Your task to perform on an android device: turn on the 24-hour format for clock Image 0: 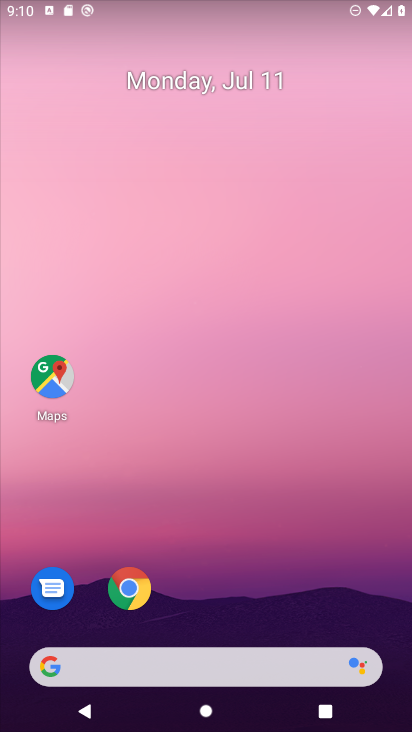
Step 0: drag from (387, 641) to (268, 46)
Your task to perform on an android device: turn on the 24-hour format for clock Image 1: 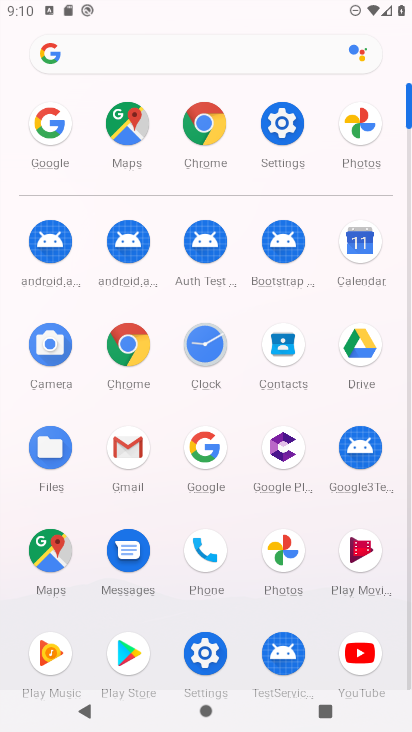
Step 1: click (195, 344)
Your task to perform on an android device: turn on the 24-hour format for clock Image 2: 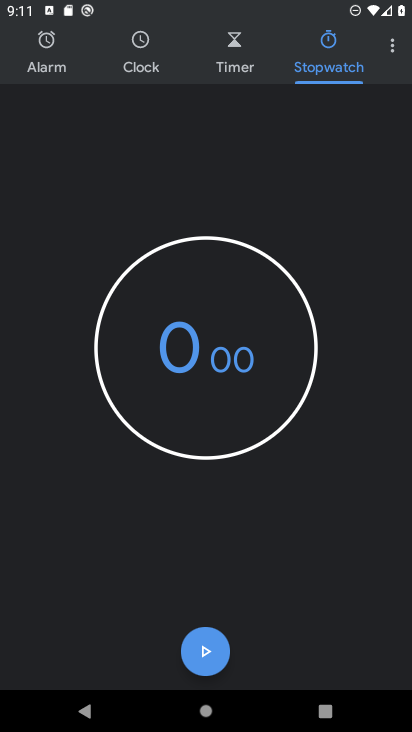
Step 2: click (388, 41)
Your task to perform on an android device: turn on the 24-hour format for clock Image 3: 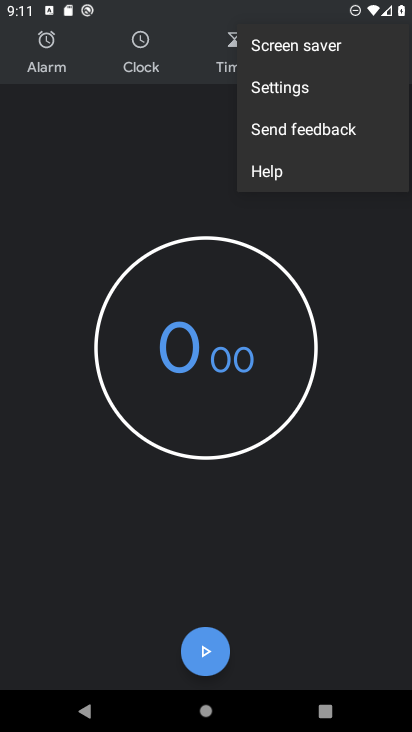
Step 3: click (282, 86)
Your task to perform on an android device: turn on the 24-hour format for clock Image 4: 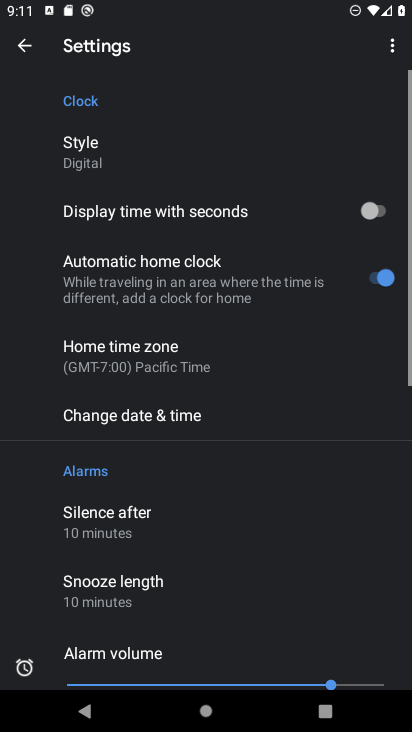
Step 4: click (183, 408)
Your task to perform on an android device: turn on the 24-hour format for clock Image 5: 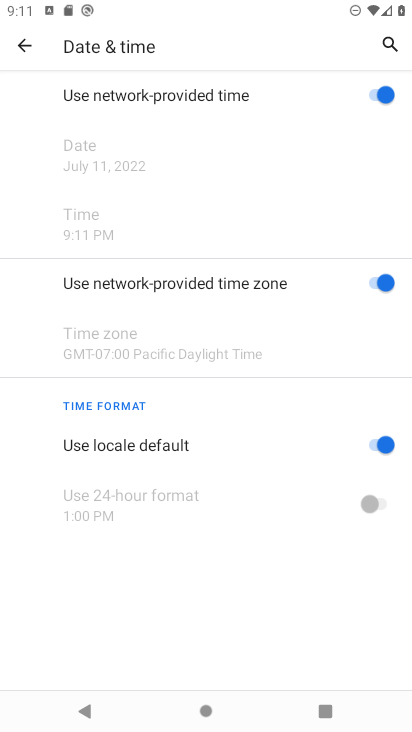
Step 5: task complete